Your task to perform on an android device: star an email in the gmail app Image 0: 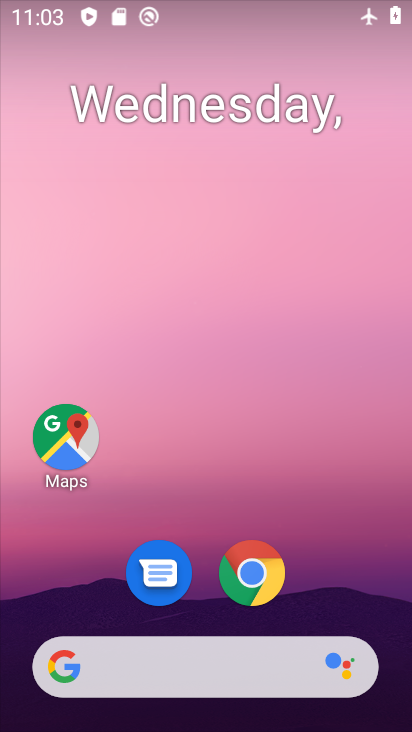
Step 0: drag from (376, 590) to (371, 171)
Your task to perform on an android device: star an email in the gmail app Image 1: 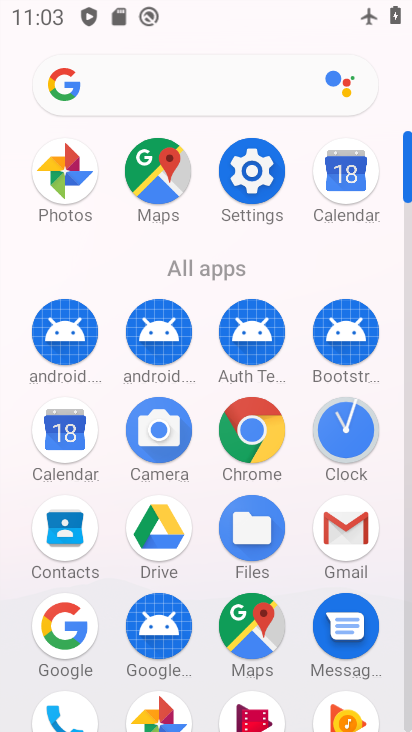
Step 1: click (328, 540)
Your task to perform on an android device: star an email in the gmail app Image 2: 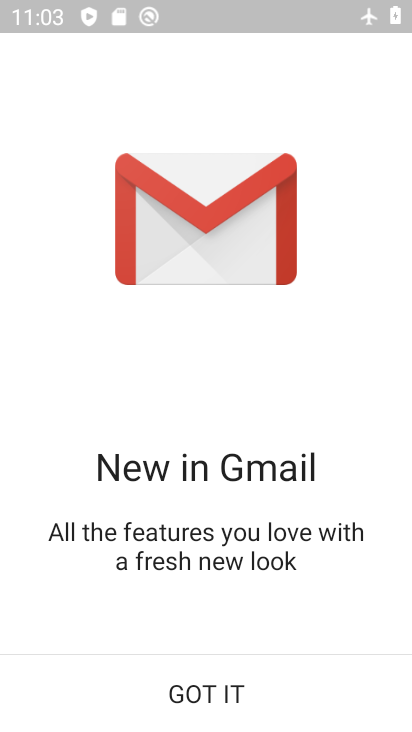
Step 2: click (340, 665)
Your task to perform on an android device: star an email in the gmail app Image 3: 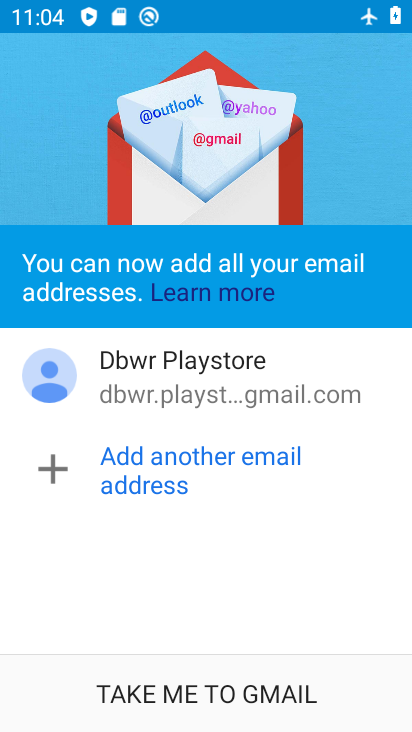
Step 3: click (335, 676)
Your task to perform on an android device: star an email in the gmail app Image 4: 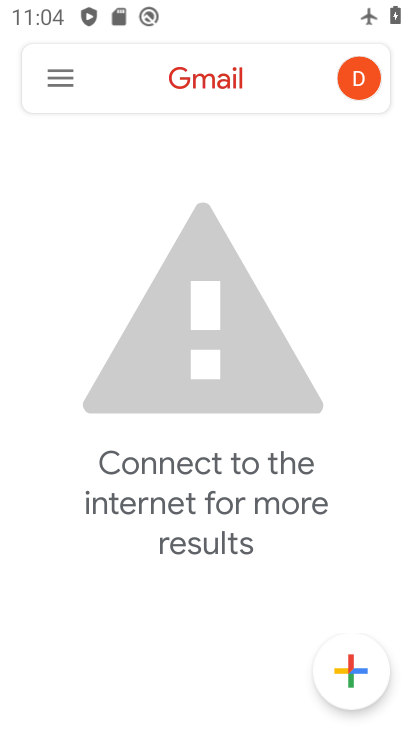
Step 4: click (55, 80)
Your task to perform on an android device: star an email in the gmail app Image 5: 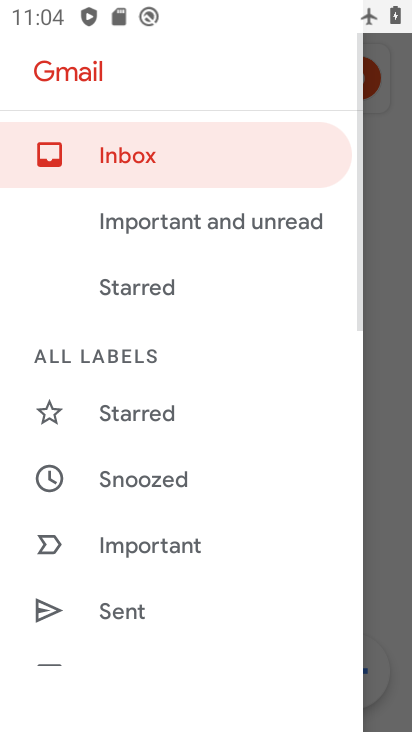
Step 5: drag from (280, 498) to (279, 396)
Your task to perform on an android device: star an email in the gmail app Image 6: 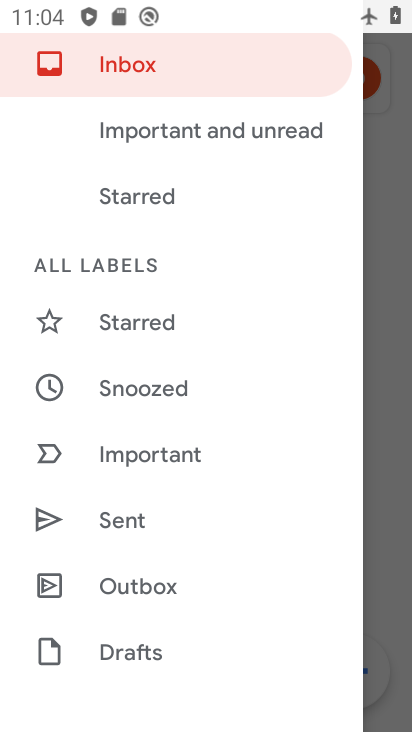
Step 6: drag from (282, 528) to (281, 394)
Your task to perform on an android device: star an email in the gmail app Image 7: 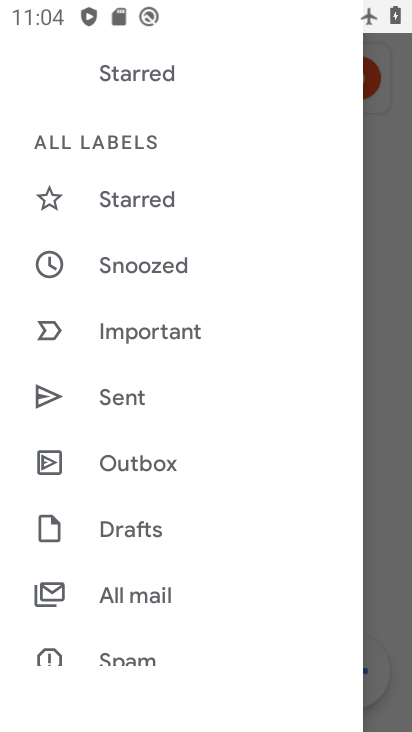
Step 7: drag from (263, 549) to (262, 344)
Your task to perform on an android device: star an email in the gmail app Image 8: 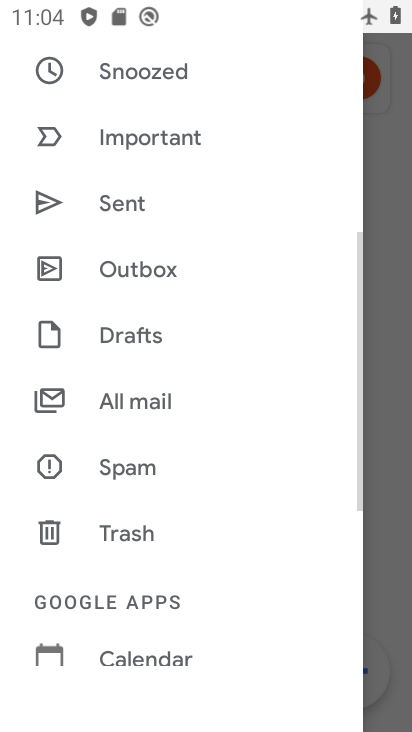
Step 8: drag from (265, 574) to (259, 386)
Your task to perform on an android device: star an email in the gmail app Image 9: 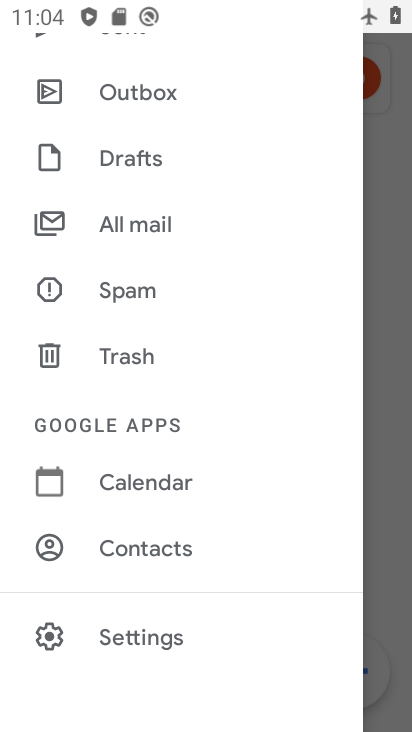
Step 9: drag from (255, 537) to (238, 371)
Your task to perform on an android device: star an email in the gmail app Image 10: 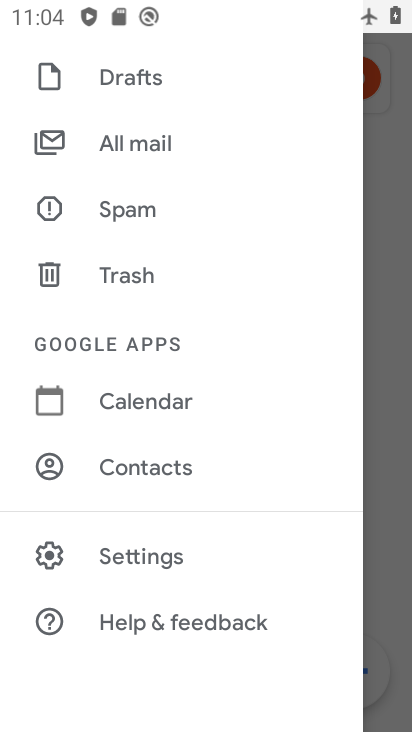
Step 10: drag from (271, 239) to (276, 389)
Your task to perform on an android device: star an email in the gmail app Image 11: 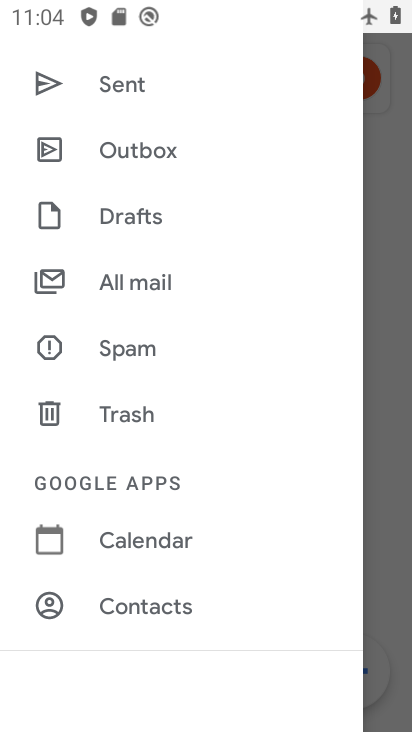
Step 11: drag from (270, 239) to (289, 355)
Your task to perform on an android device: star an email in the gmail app Image 12: 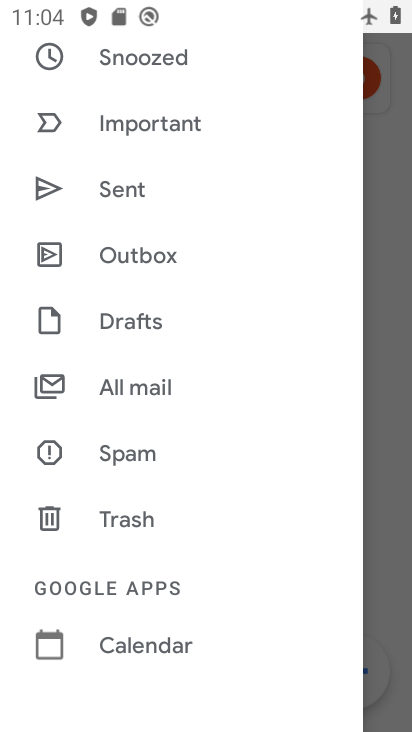
Step 12: drag from (295, 229) to (296, 289)
Your task to perform on an android device: star an email in the gmail app Image 13: 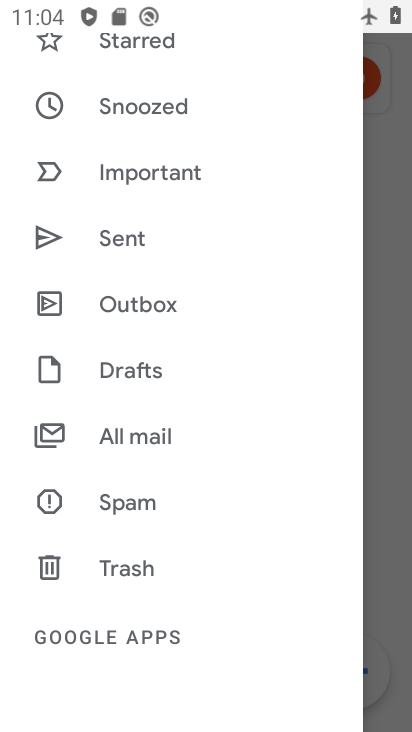
Step 13: drag from (296, 303) to (306, 396)
Your task to perform on an android device: star an email in the gmail app Image 14: 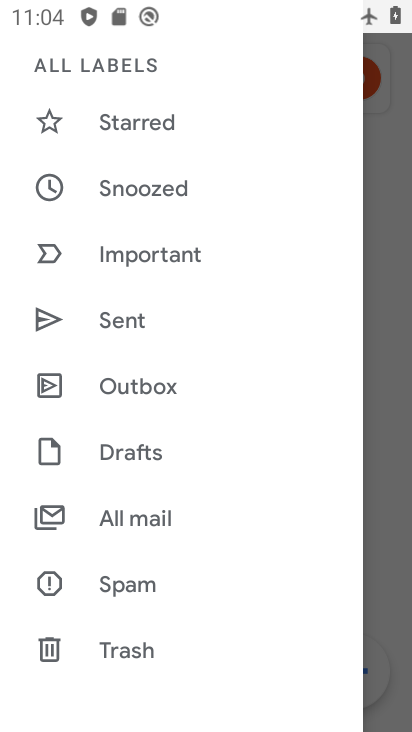
Step 14: drag from (301, 253) to (308, 356)
Your task to perform on an android device: star an email in the gmail app Image 15: 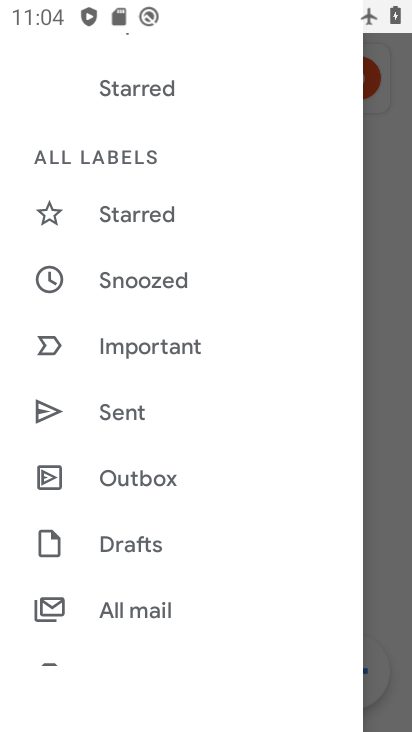
Step 15: drag from (296, 219) to (301, 439)
Your task to perform on an android device: star an email in the gmail app Image 16: 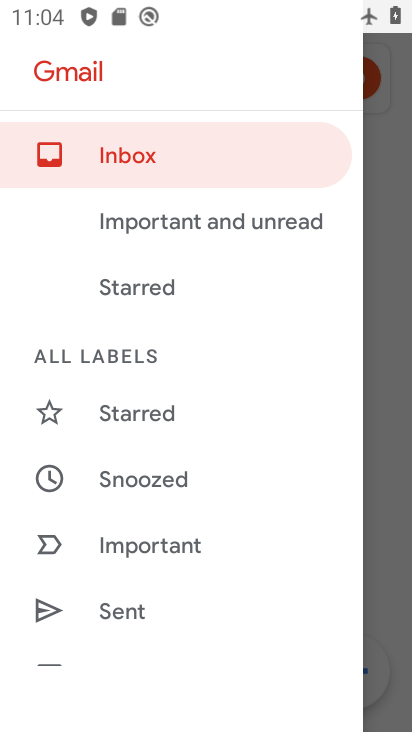
Step 16: click (243, 165)
Your task to perform on an android device: star an email in the gmail app Image 17: 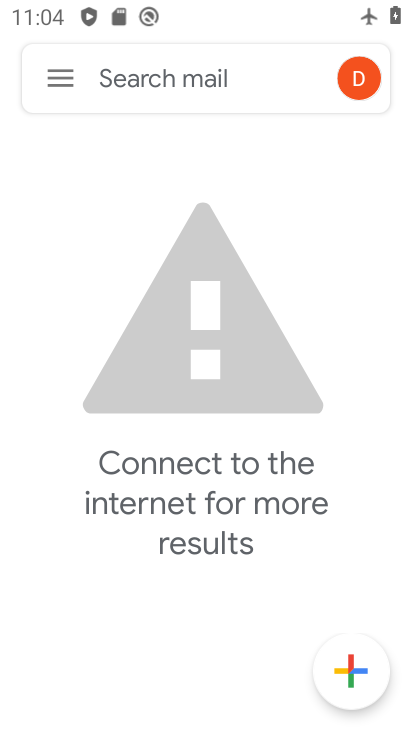
Step 17: task complete